Your task to perform on an android device: Open my contact list Image 0: 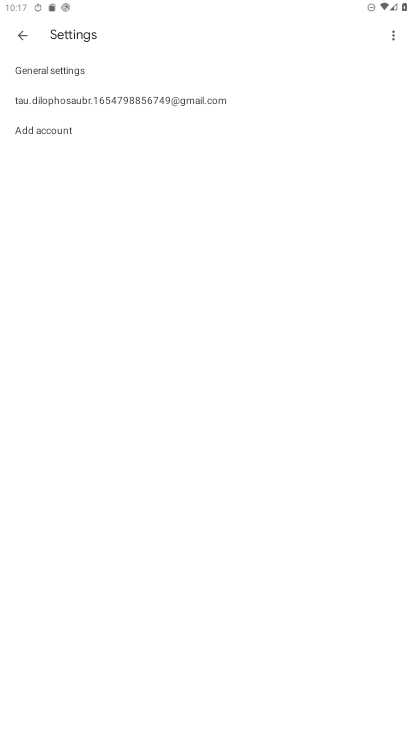
Step 0: press home button
Your task to perform on an android device: Open my contact list Image 1: 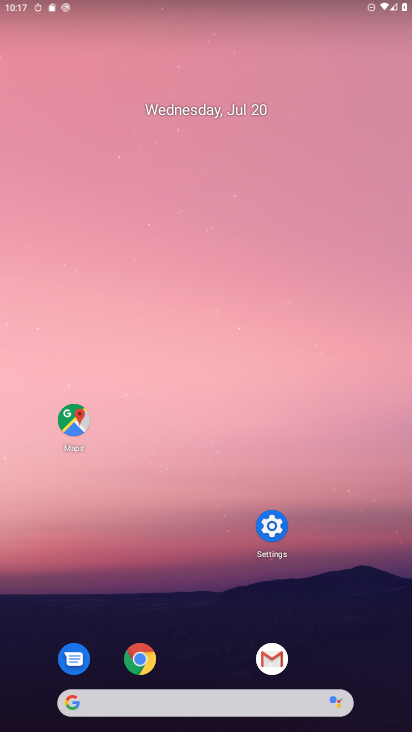
Step 1: drag from (243, 709) to (141, 77)
Your task to perform on an android device: Open my contact list Image 2: 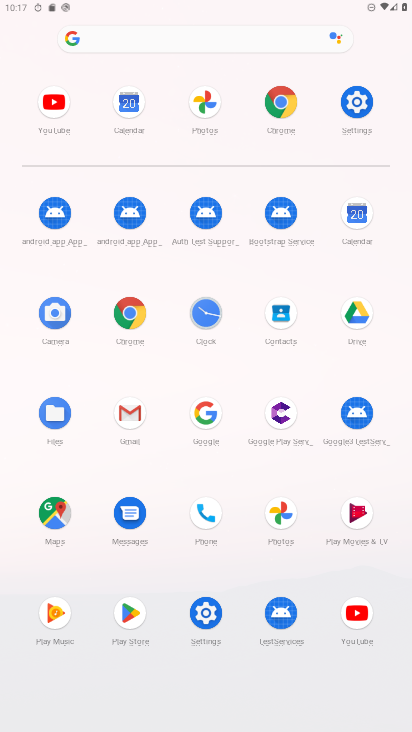
Step 2: click (214, 508)
Your task to perform on an android device: Open my contact list Image 3: 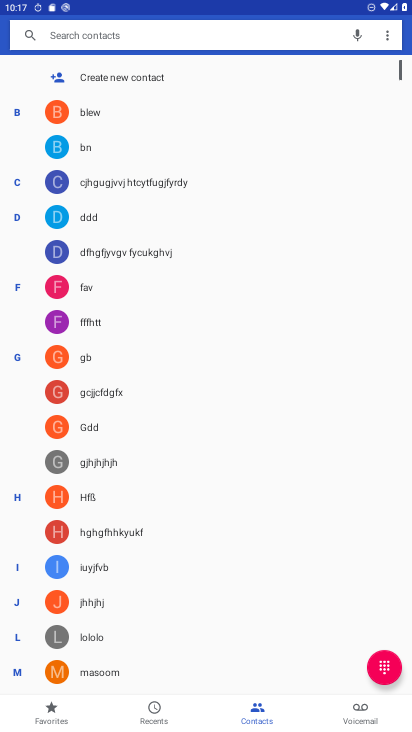
Step 3: click (92, 85)
Your task to perform on an android device: Open my contact list Image 4: 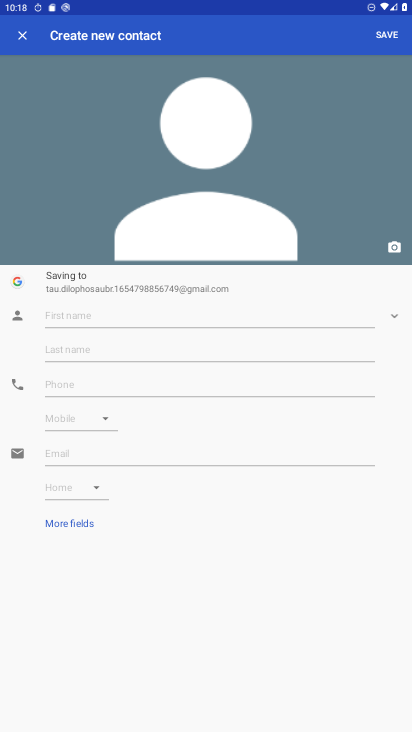
Step 4: click (145, 307)
Your task to perform on an android device: Open my contact list Image 5: 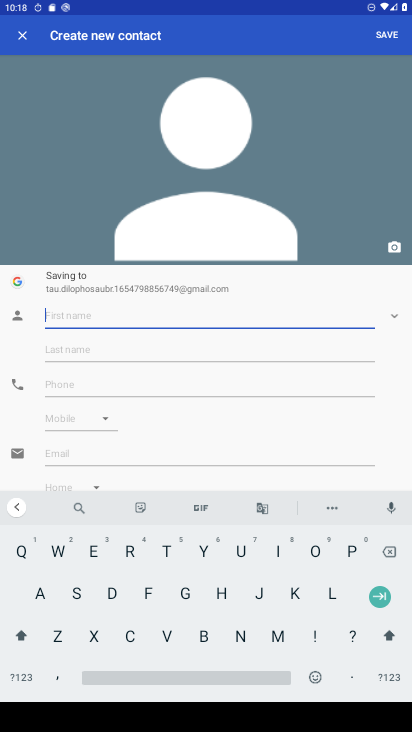
Step 5: click (185, 581)
Your task to perform on an android device: Open my contact list Image 6: 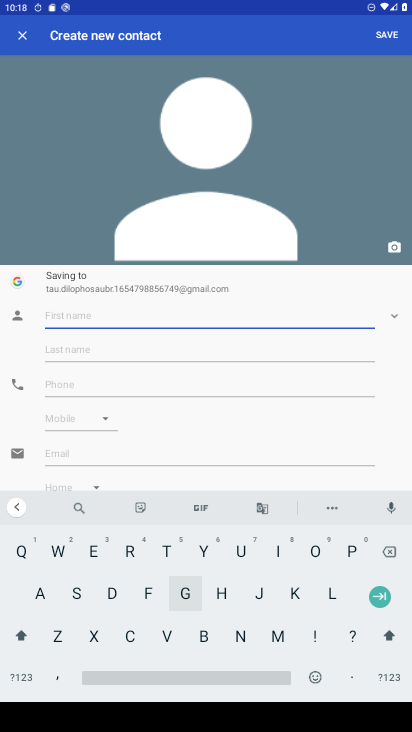
Step 6: click (104, 598)
Your task to perform on an android device: Open my contact list Image 7: 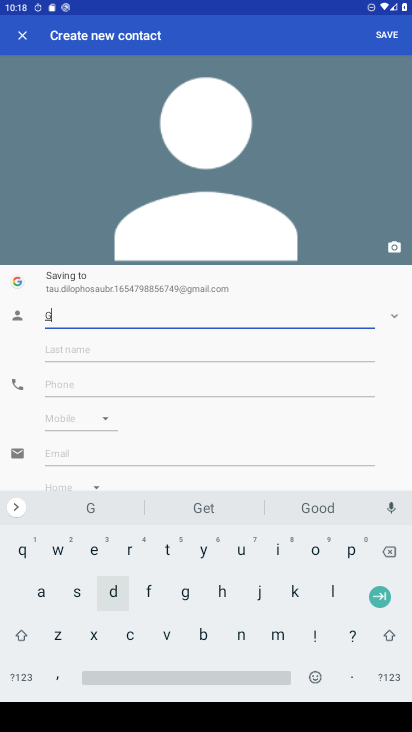
Step 7: click (115, 604)
Your task to perform on an android device: Open my contact list Image 8: 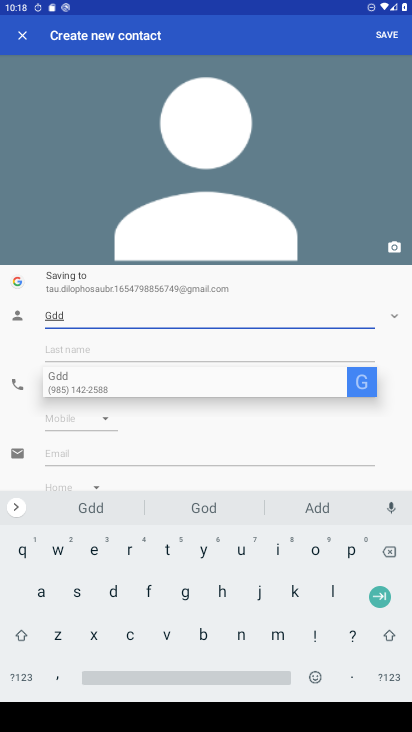
Step 8: click (57, 375)
Your task to perform on an android device: Open my contact list Image 9: 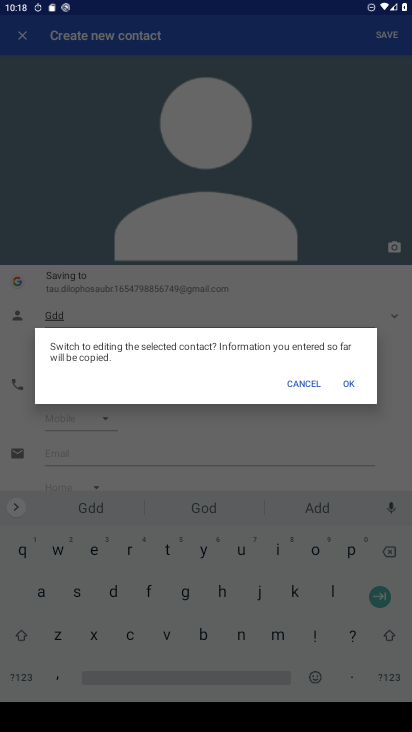
Step 9: click (301, 381)
Your task to perform on an android device: Open my contact list Image 10: 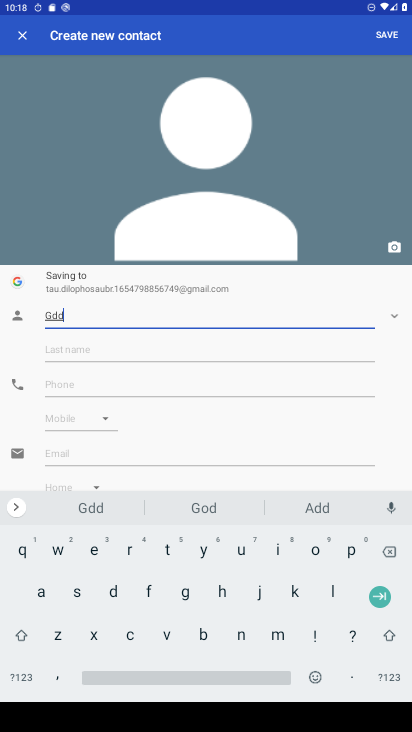
Step 10: click (215, 558)
Your task to perform on an android device: Open my contact list Image 11: 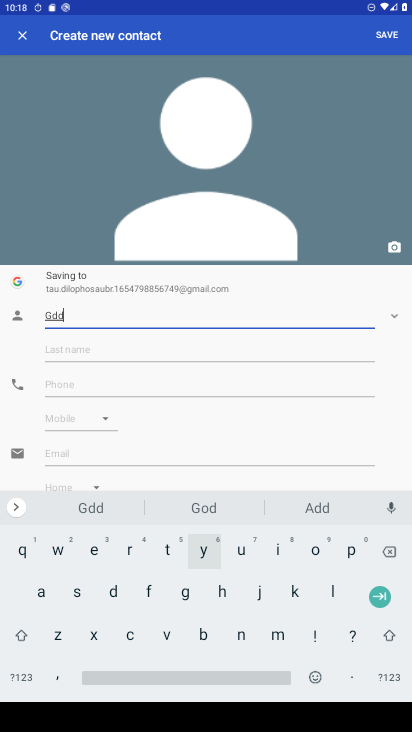
Step 11: click (189, 599)
Your task to perform on an android device: Open my contact list Image 12: 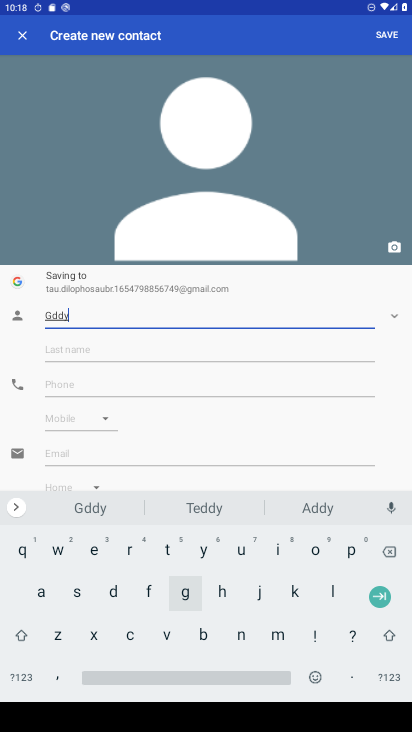
Step 12: click (181, 602)
Your task to perform on an android device: Open my contact list Image 13: 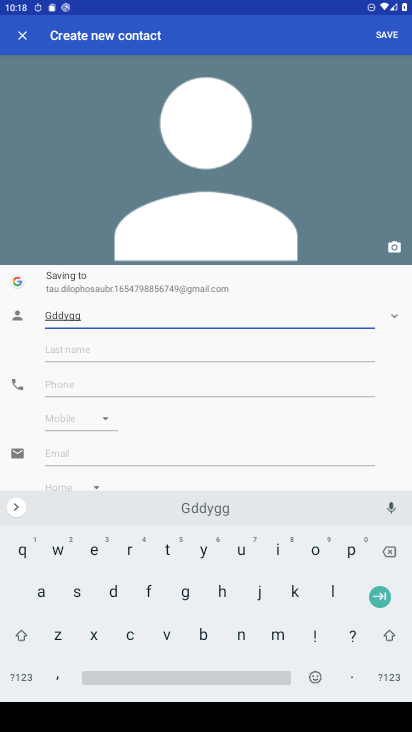
Step 13: click (111, 376)
Your task to perform on an android device: Open my contact list Image 14: 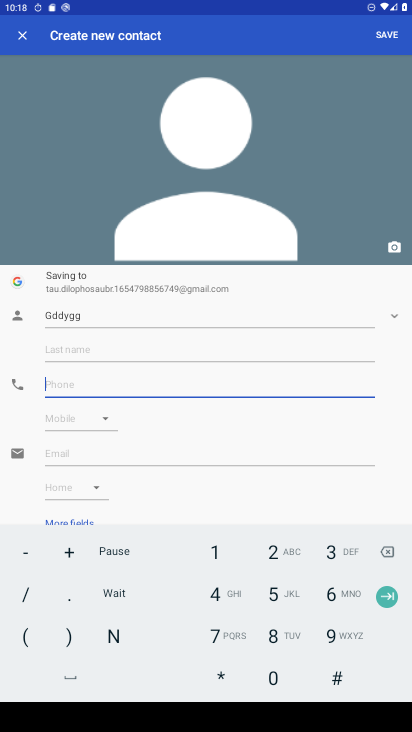
Step 14: click (253, 611)
Your task to perform on an android device: Open my contact list Image 15: 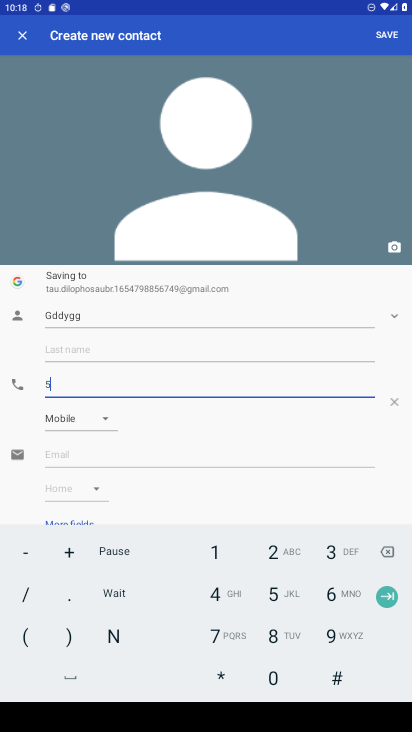
Step 15: click (273, 583)
Your task to perform on an android device: Open my contact list Image 16: 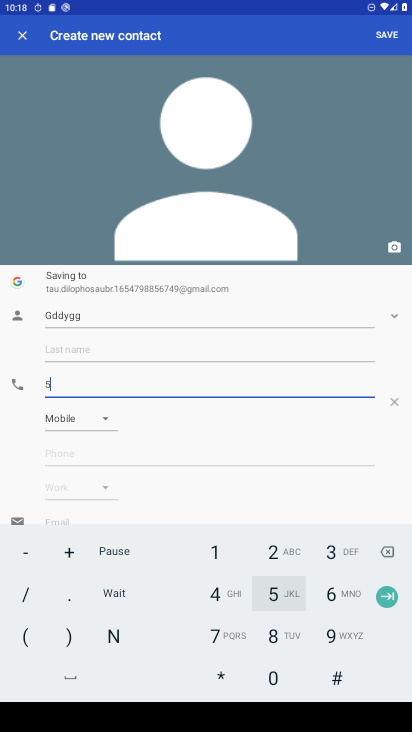
Step 16: click (305, 600)
Your task to perform on an android device: Open my contact list Image 17: 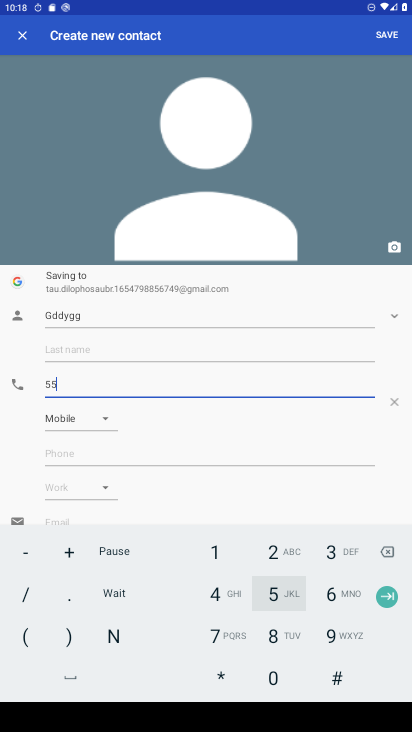
Step 17: click (297, 632)
Your task to perform on an android device: Open my contact list Image 18: 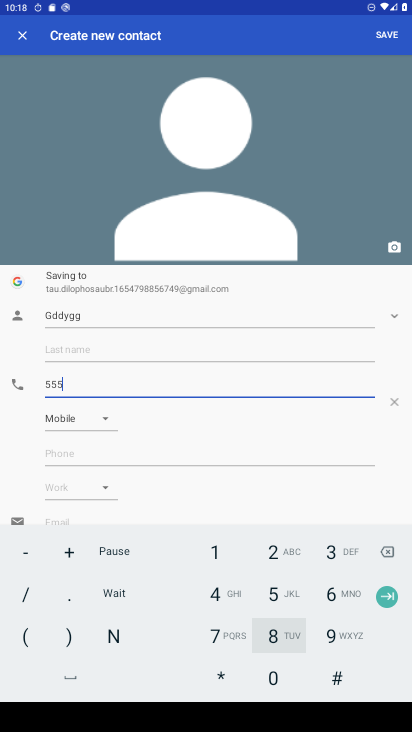
Step 18: click (264, 651)
Your task to perform on an android device: Open my contact list Image 19: 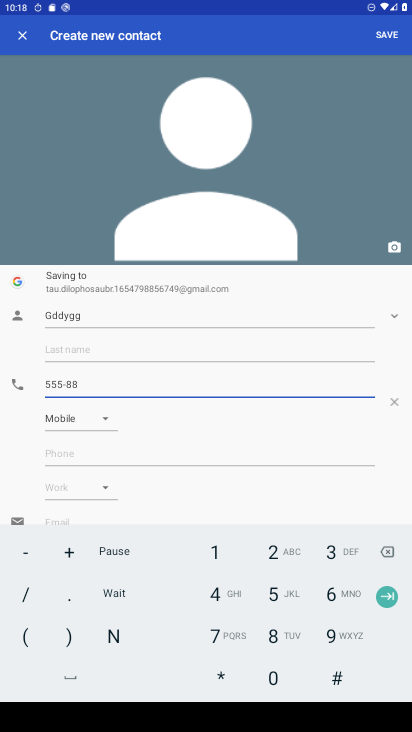
Step 19: click (394, 32)
Your task to perform on an android device: Open my contact list Image 20: 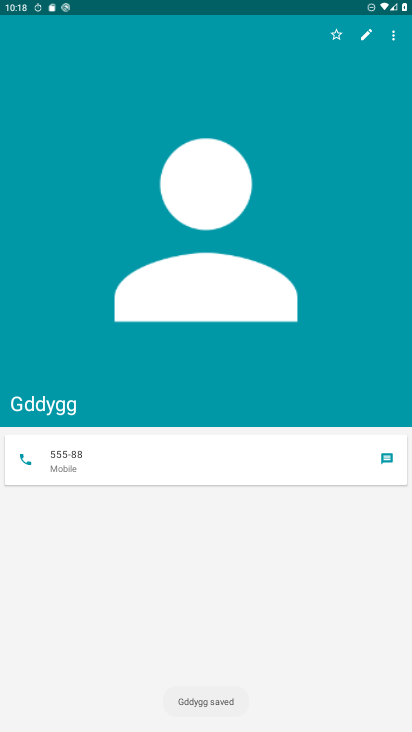
Step 20: task complete